Your task to perform on an android device: Check the news Image 0: 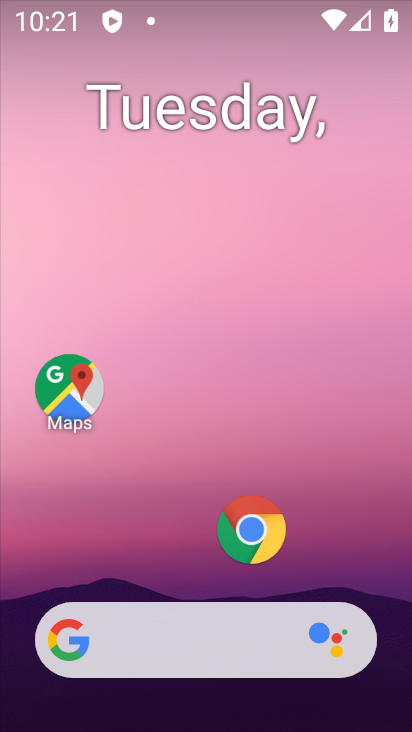
Step 0: drag from (208, 516) to (236, 189)
Your task to perform on an android device: Check the news Image 1: 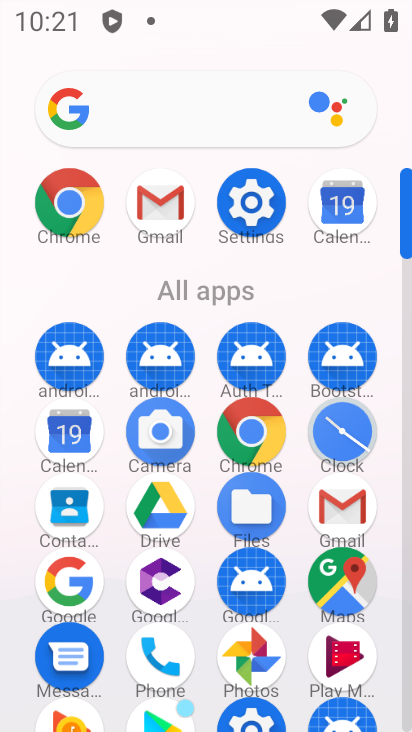
Step 1: click (255, 425)
Your task to perform on an android device: Check the news Image 2: 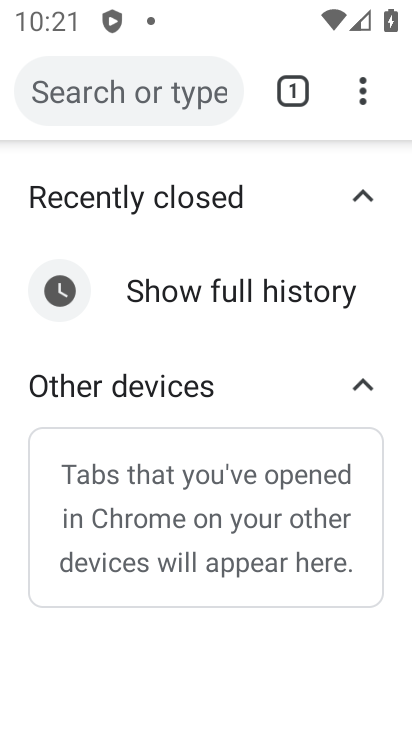
Step 2: click (110, 91)
Your task to perform on an android device: Check the news Image 3: 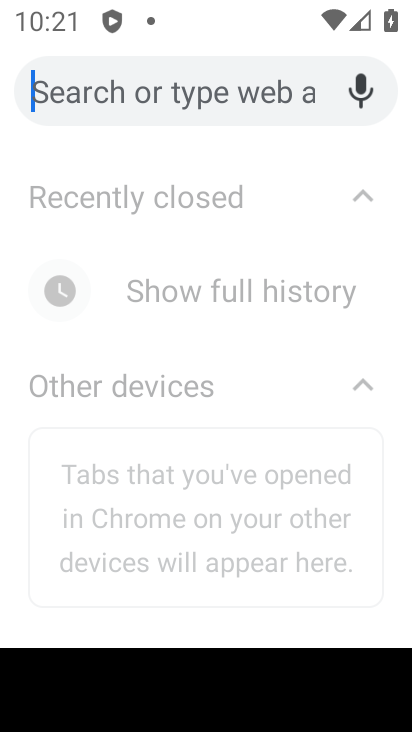
Step 3: type "news"
Your task to perform on an android device: Check the news Image 4: 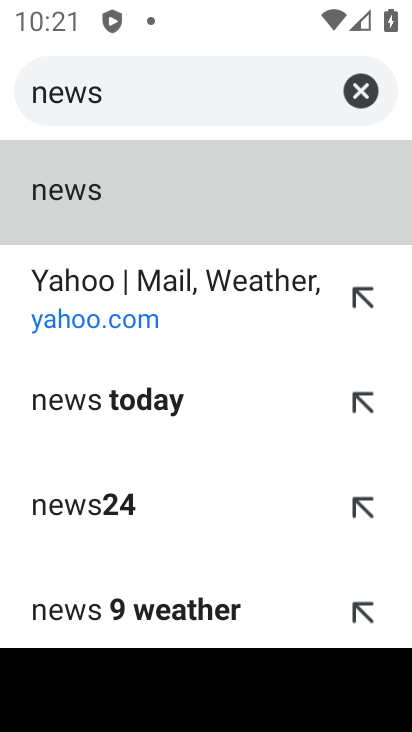
Step 4: click (123, 190)
Your task to perform on an android device: Check the news Image 5: 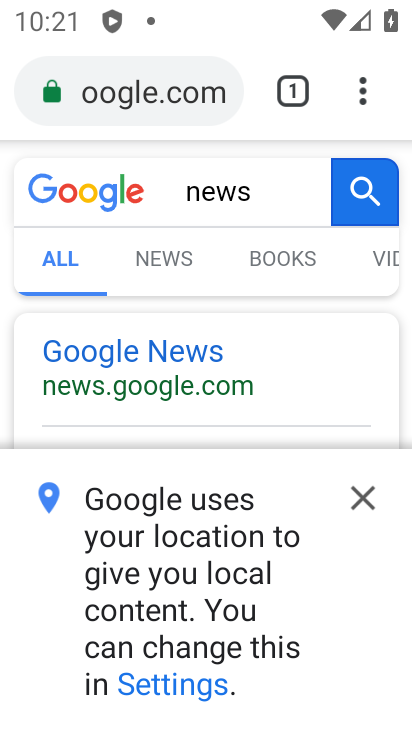
Step 5: click (363, 487)
Your task to perform on an android device: Check the news Image 6: 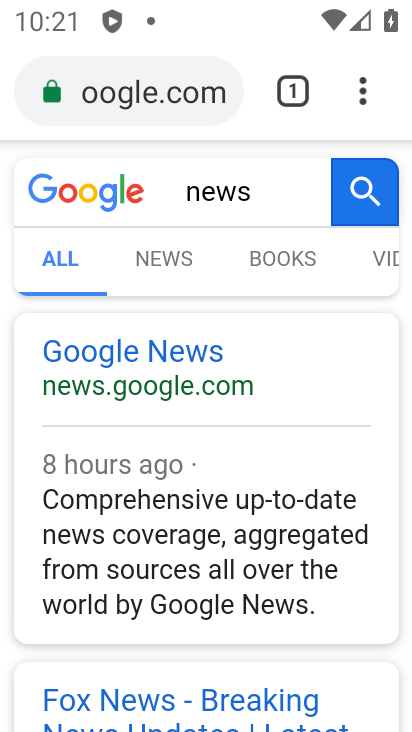
Step 6: task complete